Your task to perform on an android device: toggle notification dots Image 0: 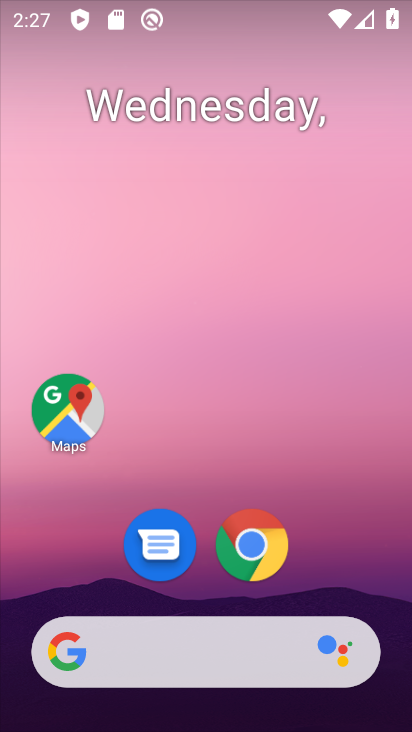
Step 0: press home button
Your task to perform on an android device: toggle notification dots Image 1: 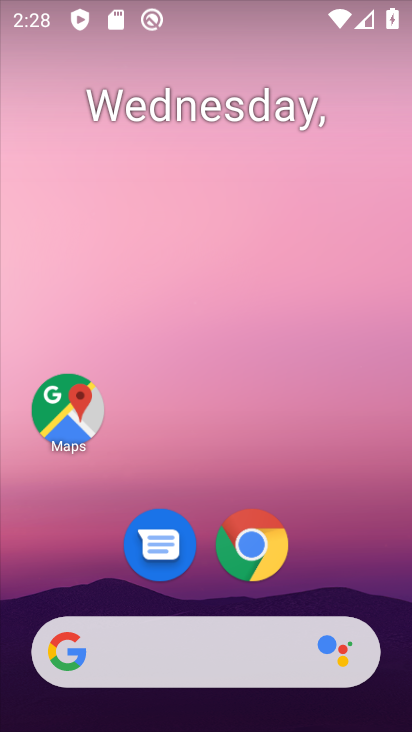
Step 1: drag from (183, 666) to (272, 109)
Your task to perform on an android device: toggle notification dots Image 2: 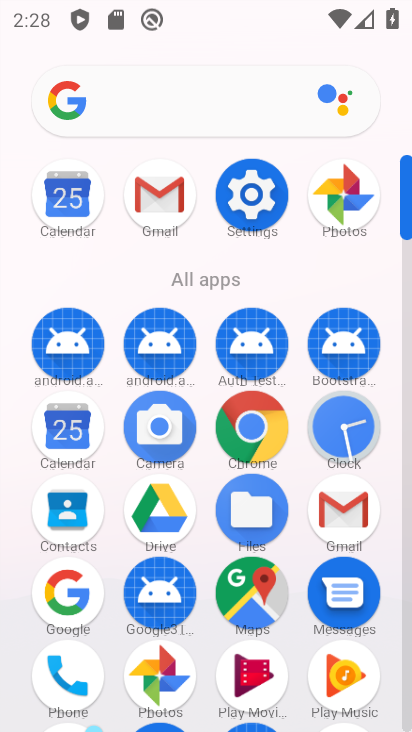
Step 2: click (251, 187)
Your task to perform on an android device: toggle notification dots Image 3: 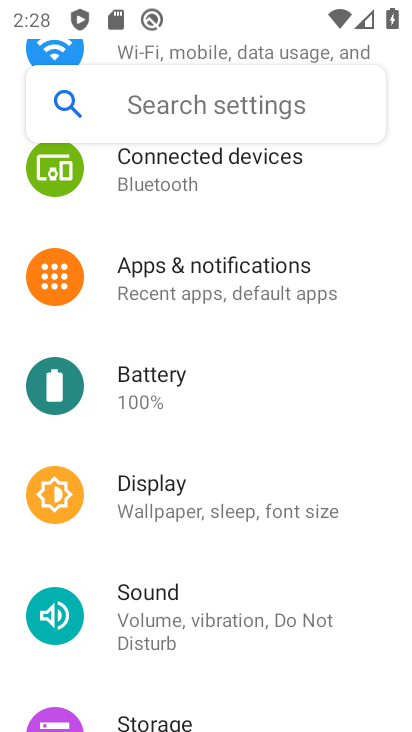
Step 3: drag from (324, 194) to (315, 572)
Your task to perform on an android device: toggle notification dots Image 4: 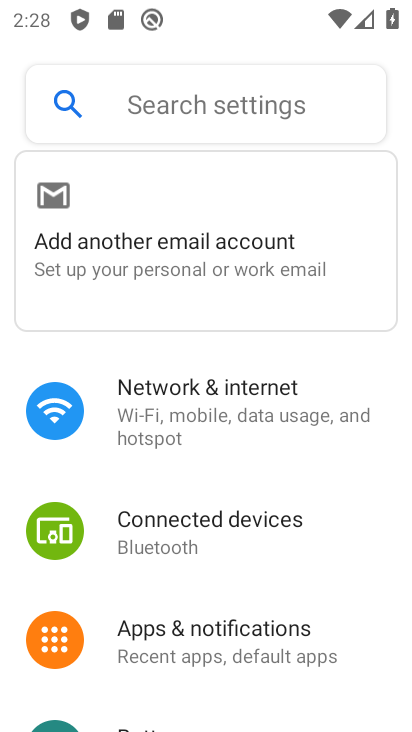
Step 4: click (240, 643)
Your task to perform on an android device: toggle notification dots Image 5: 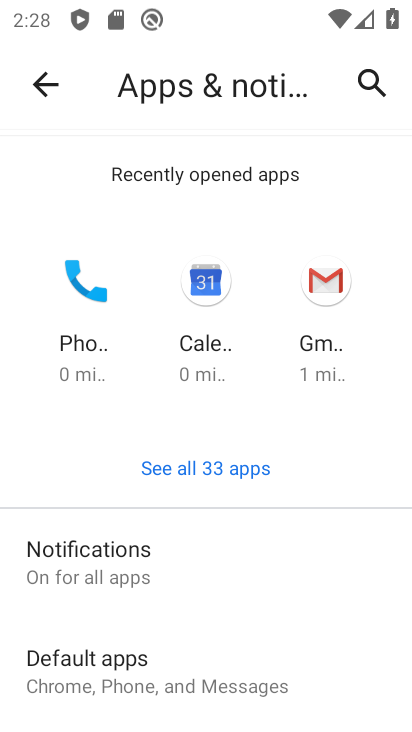
Step 5: click (99, 568)
Your task to perform on an android device: toggle notification dots Image 6: 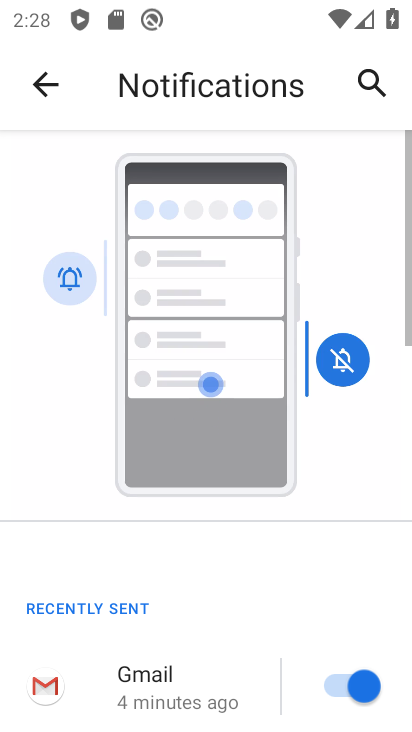
Step 6: drag from (264, 655) to (384, 116)
Your task to perform on an android device: toggle notification dots Image 7: 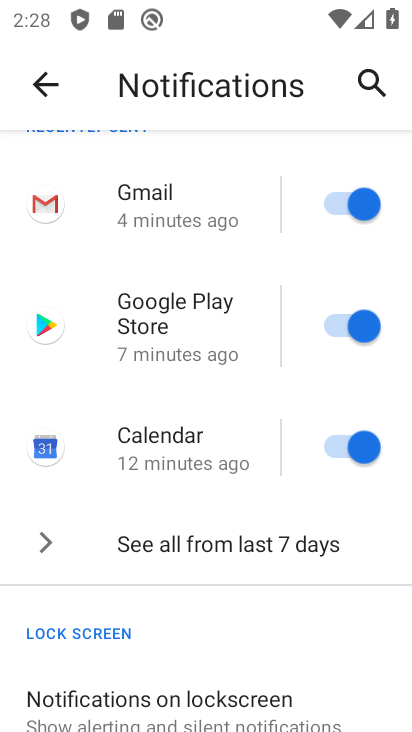
Step 7: drag from (244, 639) to (342, 192)
Your task to perform on an android device: toggle notification dots Image 8: 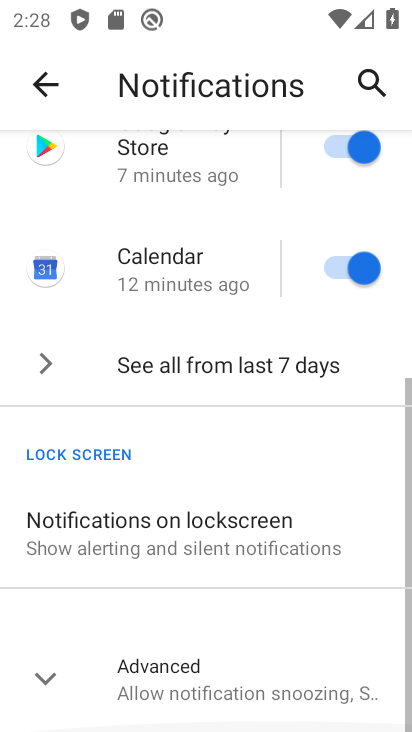
Step 8: click (160, 678)
Your task to perform on an android device: toggle notification dots Image 9: 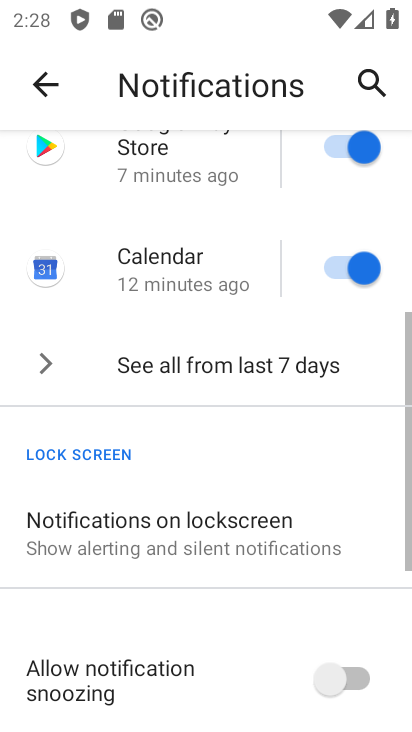
Step 9: drag from (221, 668) to (317, 165)
Your task to perform on an android device: toggle notification dots Image 10: 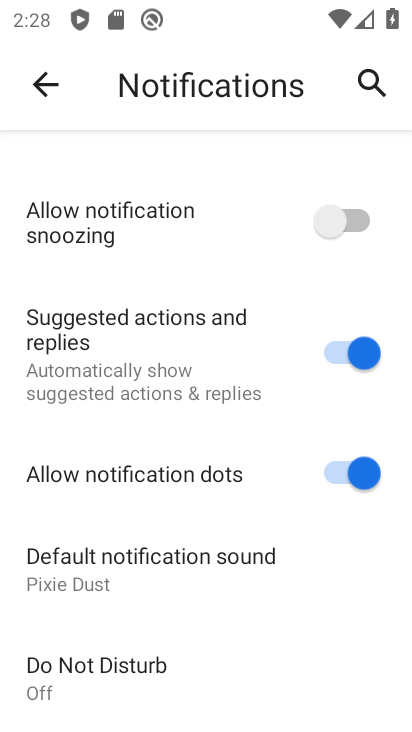
Step 10: click (346, 472)
Your task to perform on an android device: toggle notification dots Image 11: 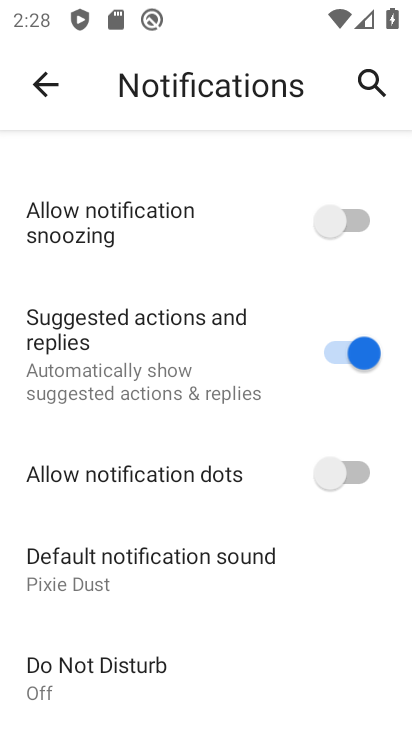
Step 11: task complete